Your task to perform on an android device: install app "Google News" Image 0: 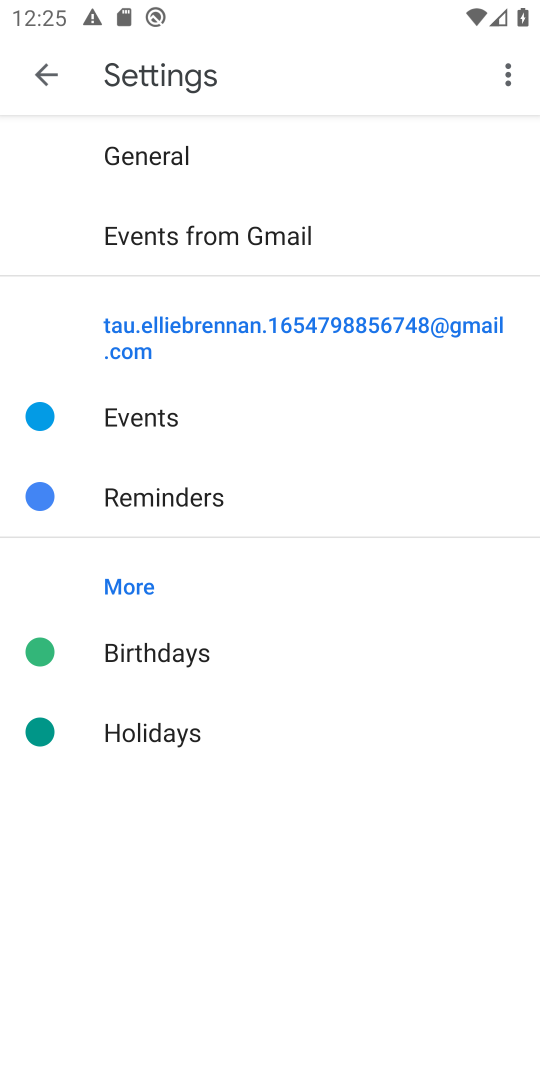
Step 0: press home button
Your task to perform on an android device: install app "Google News" Image 1: 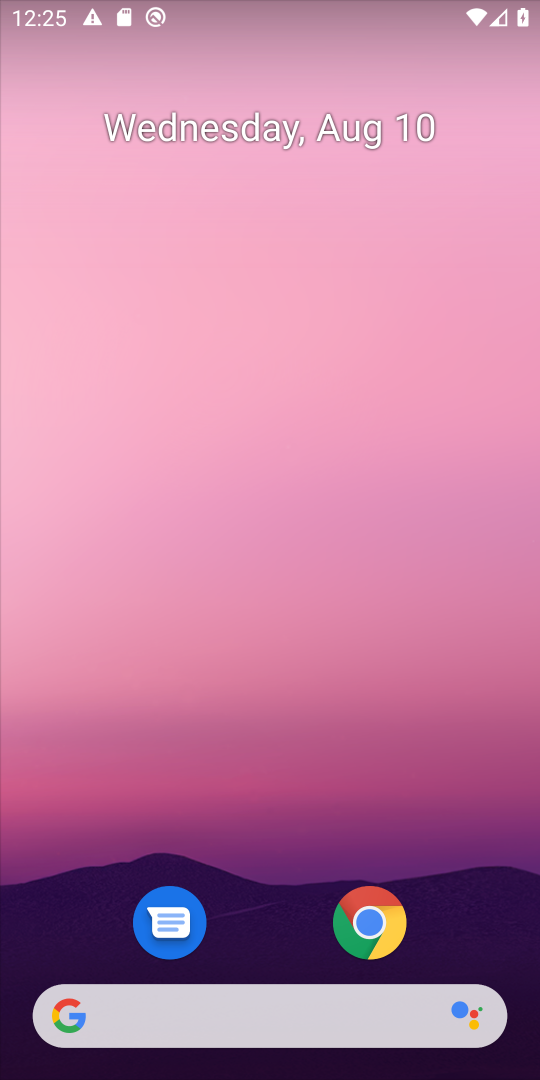
Step 1: drag from (253, 950) to (274, 75)
Your task to perform on an android device: install app "Google News" Image 2: 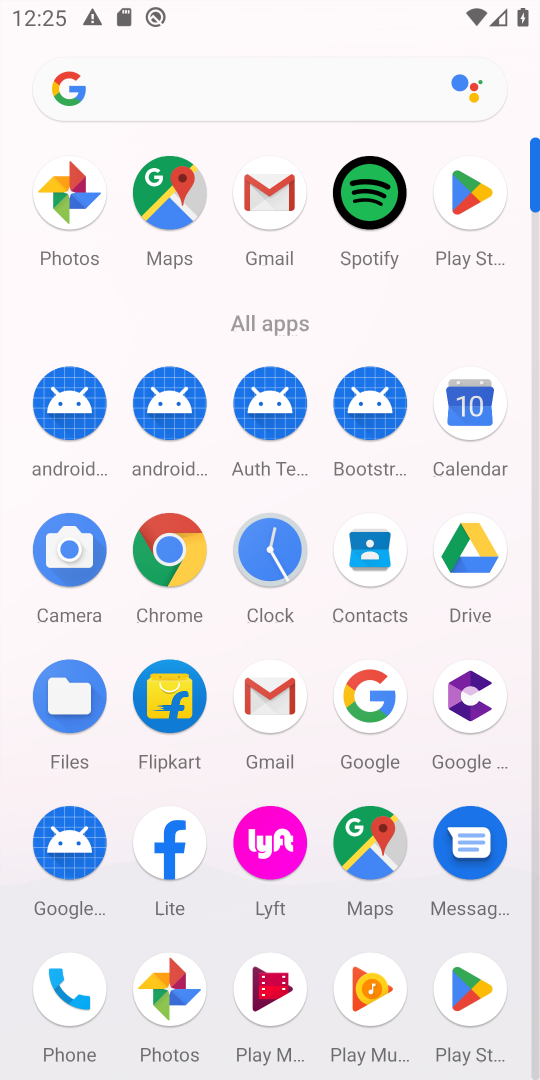
Step 2: click (365, 690)
Your task to perform on an android device: install app "Google News" Image 3: 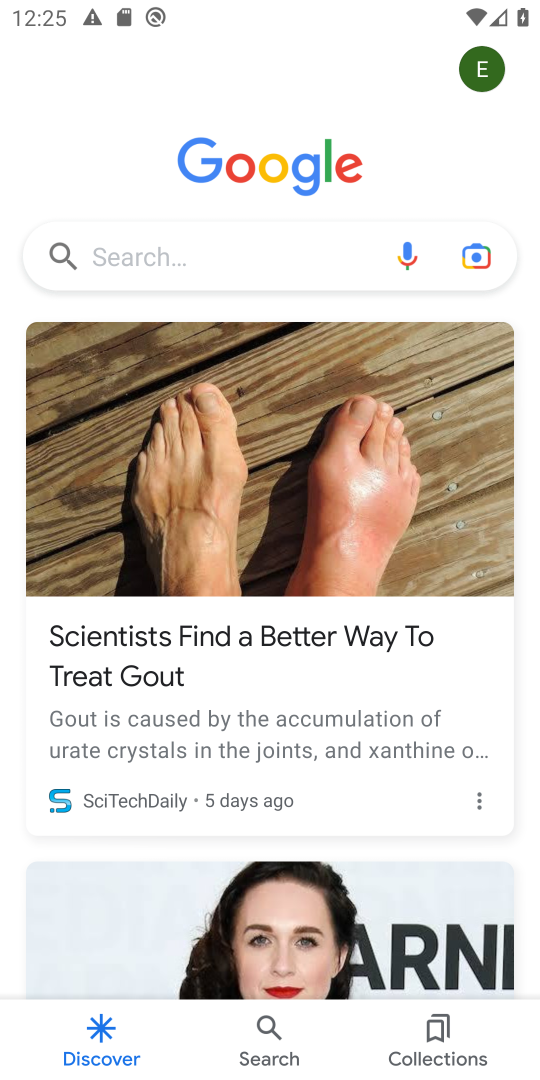
Step 3: click (176, 248)
Your task to perform on an android device: install app "Google News" Image 4: 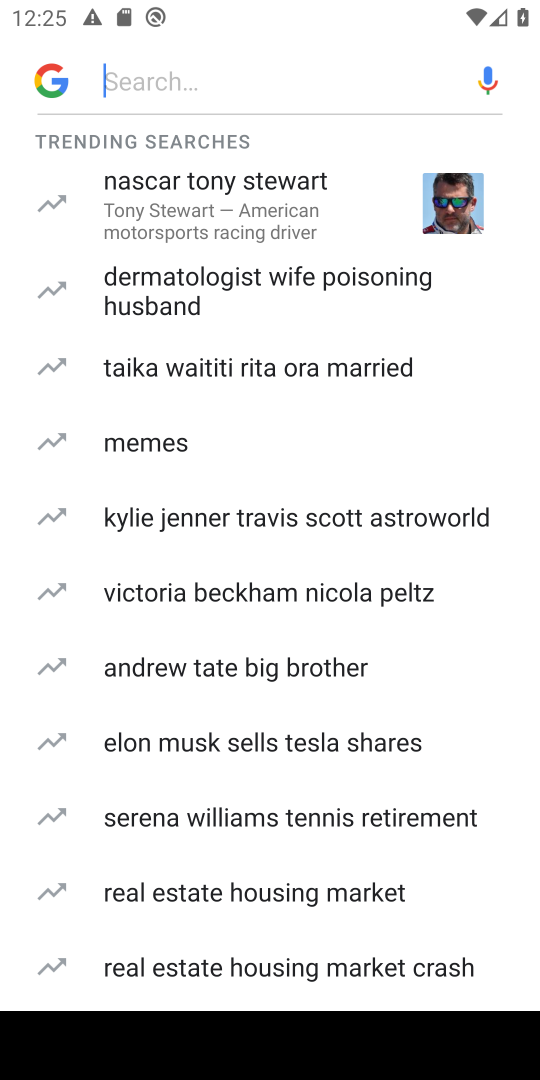
Step 4: type "Google News"
Your task to perform on an android device: install app "Google News" Image 5: 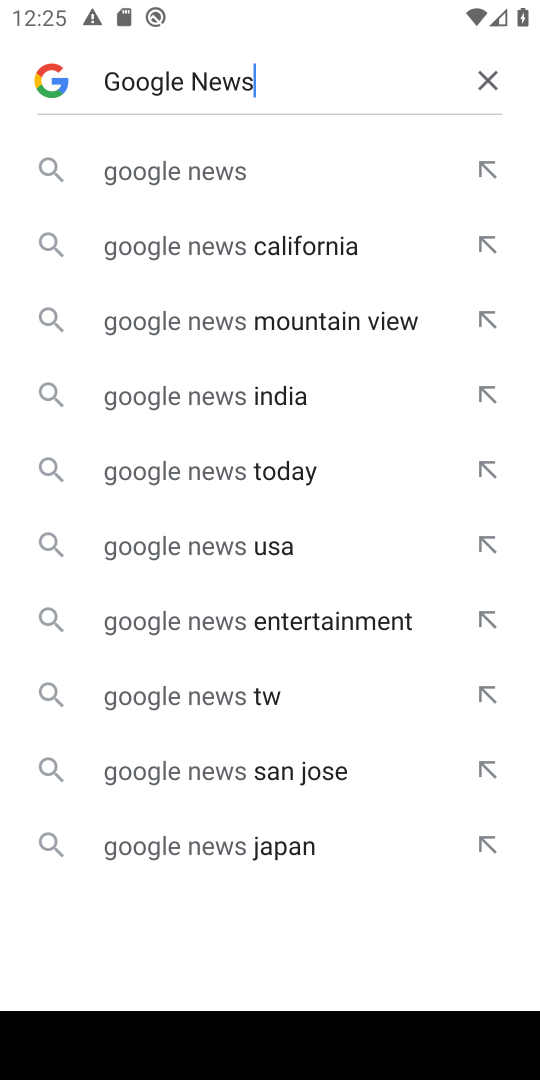
Step 5: click (197, 172)
Your task to perform on an android device: install app "Google News" Image 6: 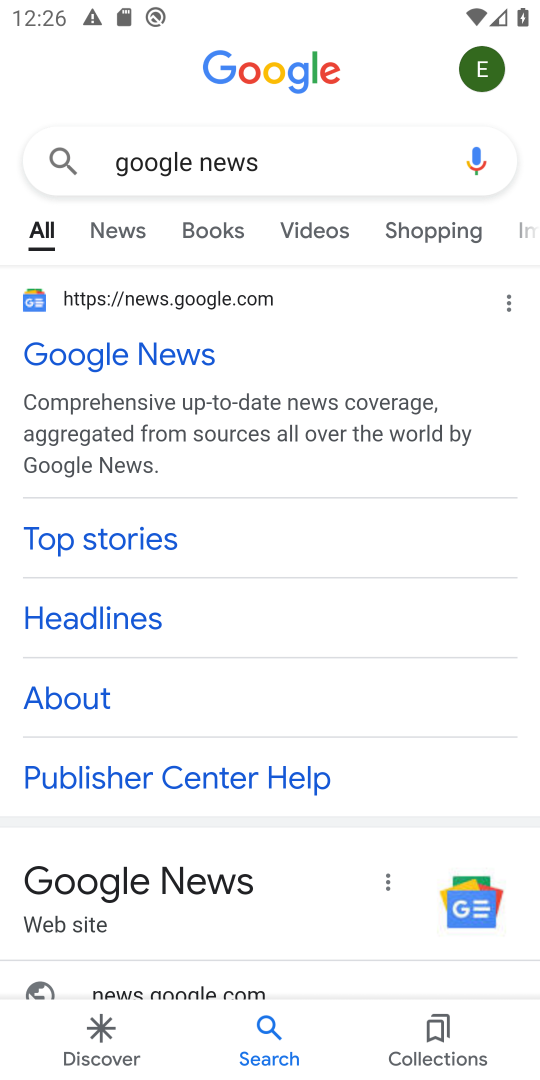
Step 6: click (160, 338)
Your task to perform on an android device: install app "Google News" Image 7: 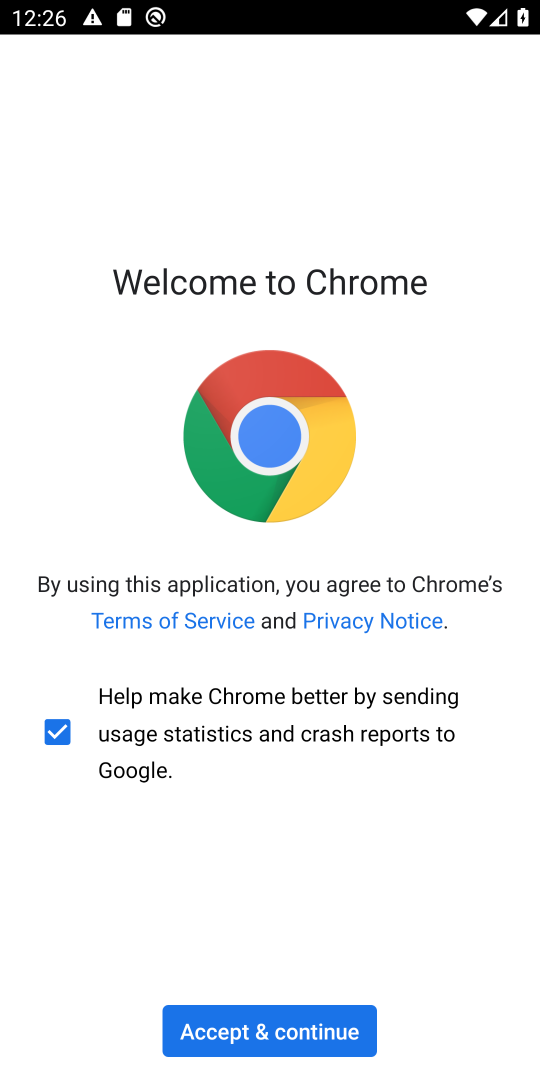
Step 7: click (256, 1017)
Your task to perform on an android device: install app "Google News" Image 8: 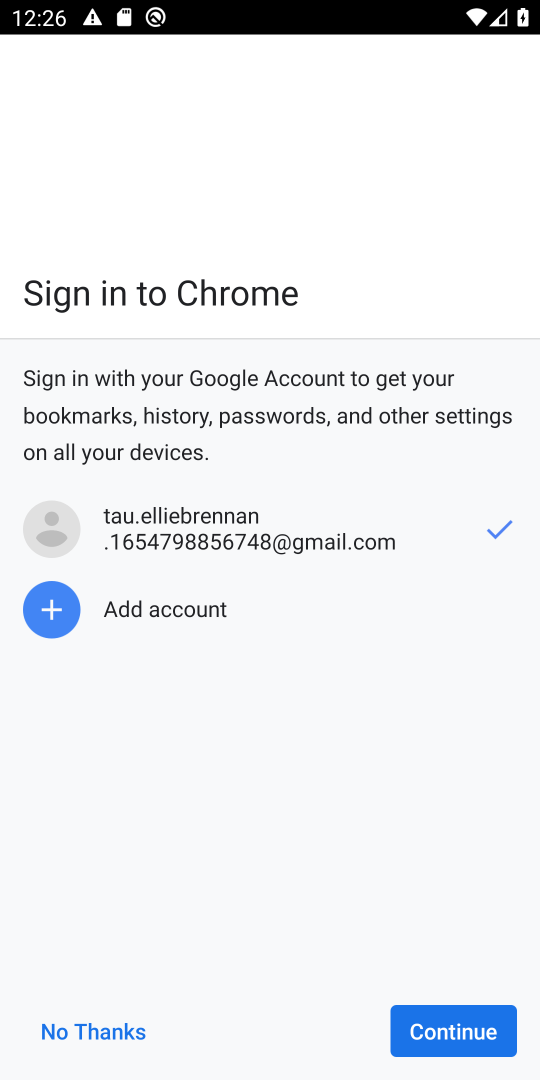
Step 8: click (438, 1043)
Your task to perform on an android device: install app "Google News" Image 9: 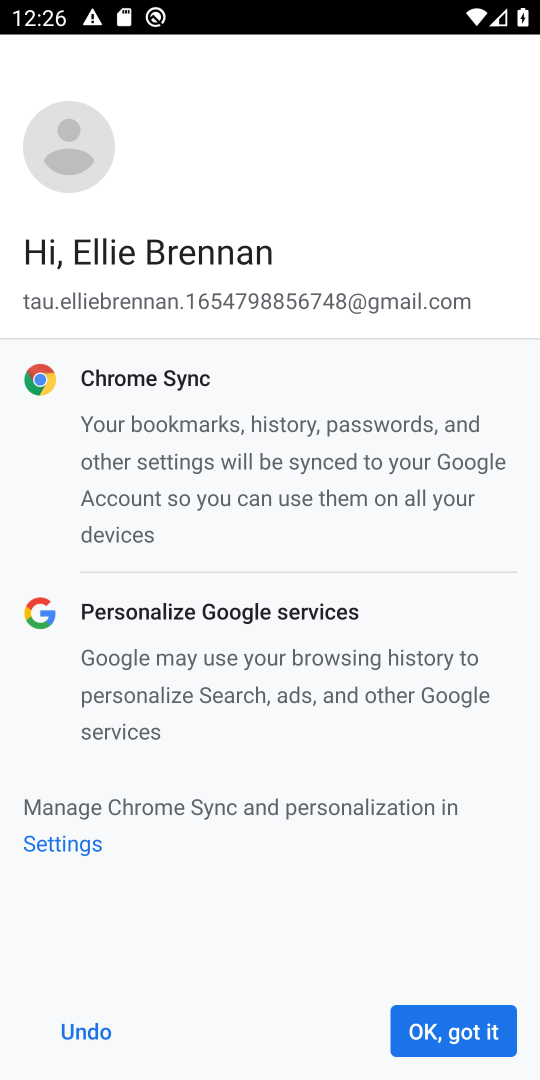
Step 9: click (438, 1043)
Your task to perform on an android device: install app "Google News" Image 10: 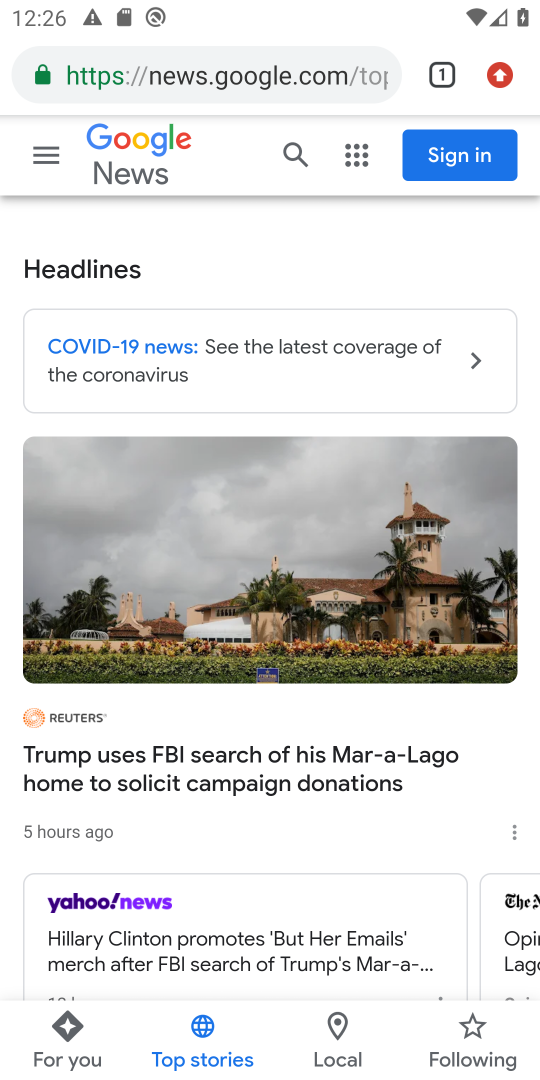
Step 10: task complete